Your task to perform on an android device: Open the Play Movies app and select the watchlist tab. Image 0: 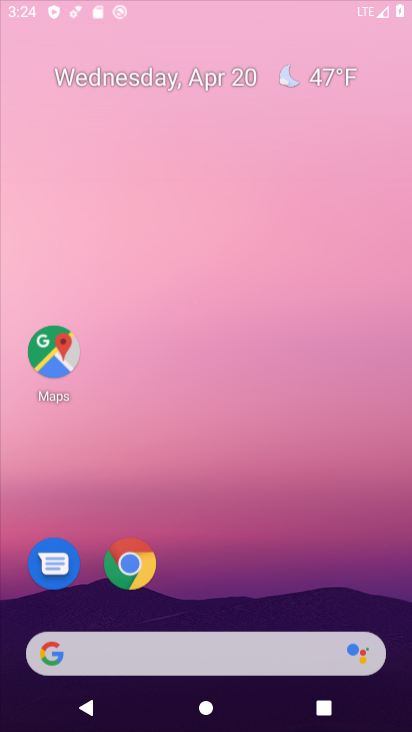
Step 0: click (282, 48)
Your task to perform on an android device: Open the Play Movies app and select the watchlist tab. Image 1: 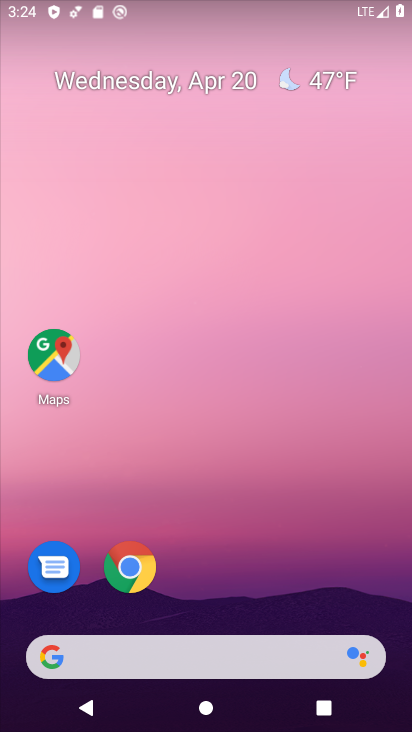
Step 1: drag from (389, 624) to (255, 45)
Your task to perform on an android device: Open the Play Movies app and select the watchlist tab. Image 2: 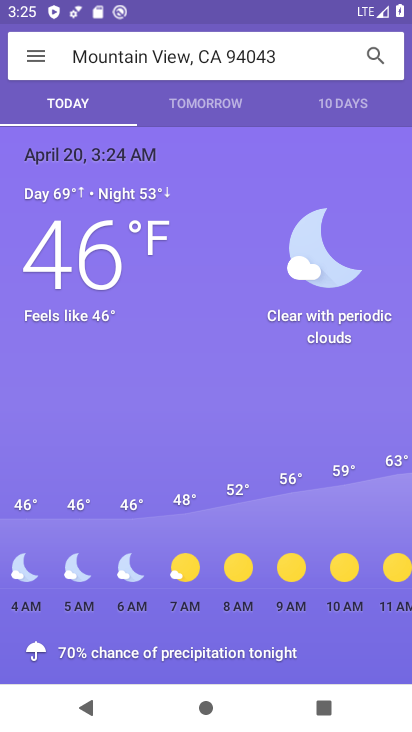
Step 2: press back button
Your task to perform on an android device: Open the Play Movies app and select the watchlist tab. Image 3: 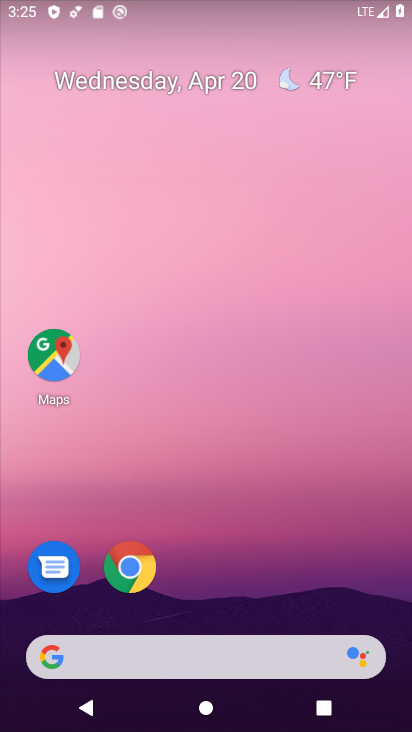
Step 3: drag from (344, 541) to (264, 79)
Your task to perform on an android device: Open the Play Movies app and select the watchlist tab. Image 4: 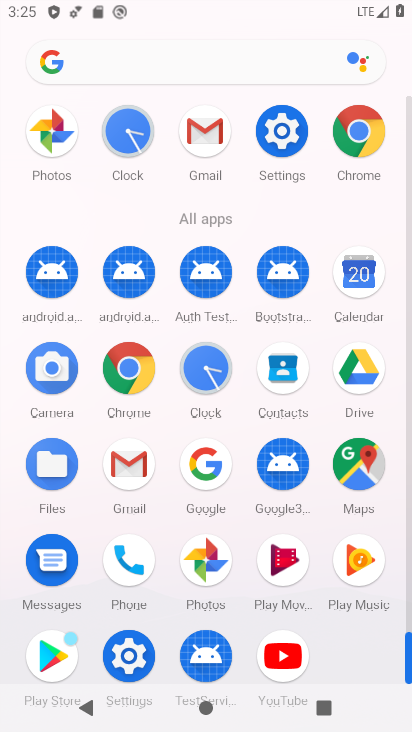
Step 4: click (286, 563)
Your task to perform on an android device: Open the Play Movies app and select the watchlist tab. Image 5: 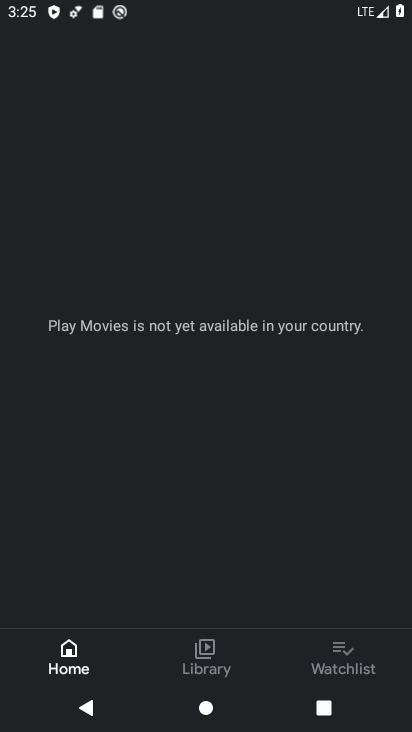
Step 5: click (348, 646)
Your task to perform on an android device: Open the Play Movies app and select the watchlist tab. Image 6: 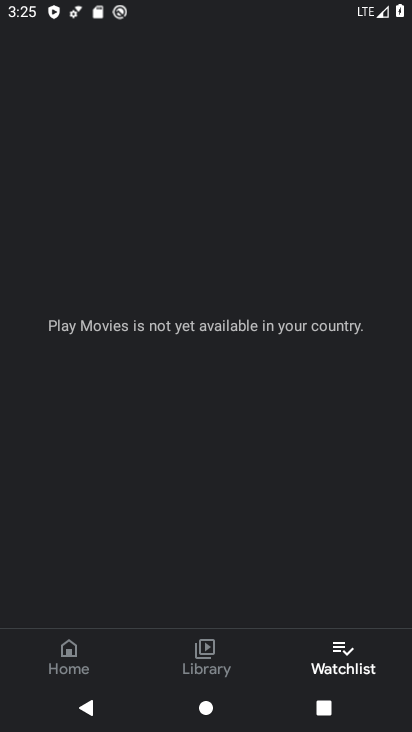
Step 6: task complete